Your task to perform on an android device: set the timer Image 0: 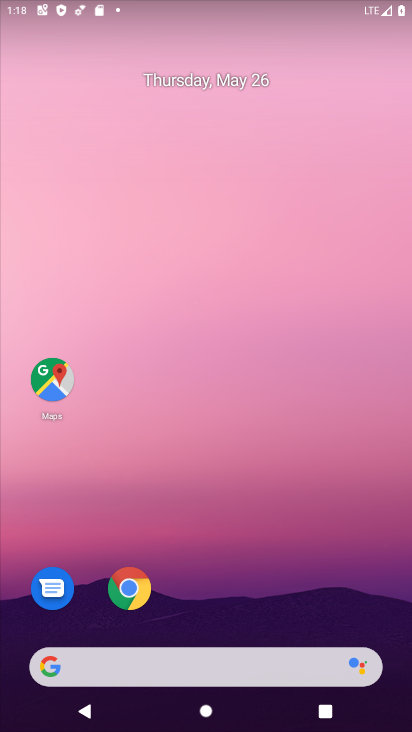
Step 0: drag from (402, 701) to (372, 170)
Your task to perform on an android device: set the timer Image 1: 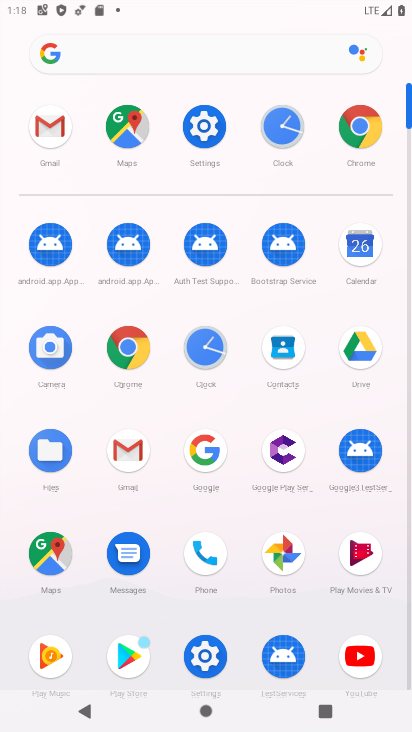
Step 1: click (281, 135)
Your task to perform on an android device: set the timer Image 2: 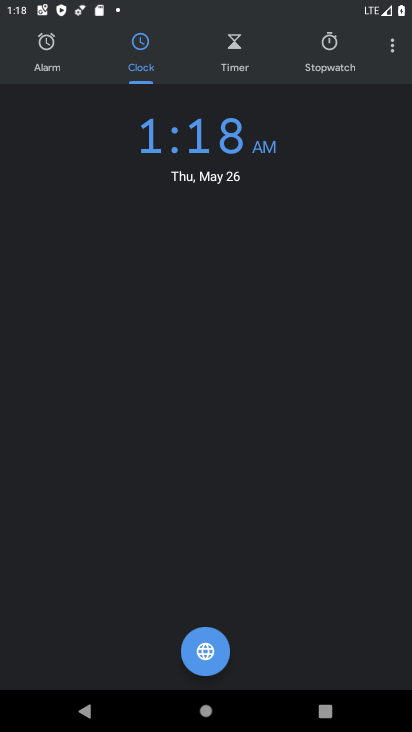
Step 2: click (393, 48)
Your task to perform on an android device: set the timer Image 3: 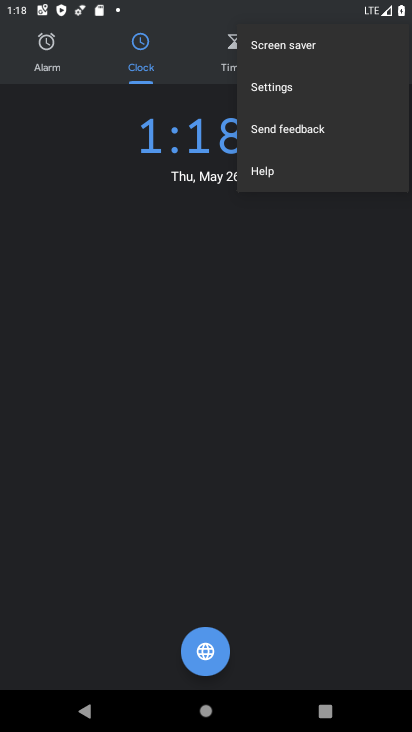
Step 3: click (274, 93)
Your task to perform on an android device: set the timer Image 4: 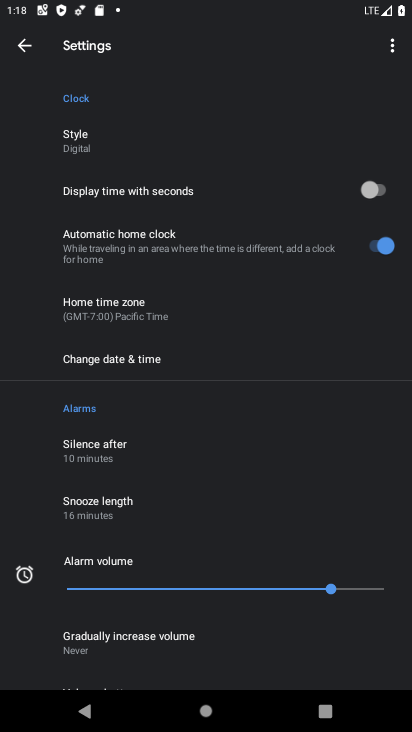
Step 4: click (30, 48)
Your task to perform on an android device: set the timer Image 5: 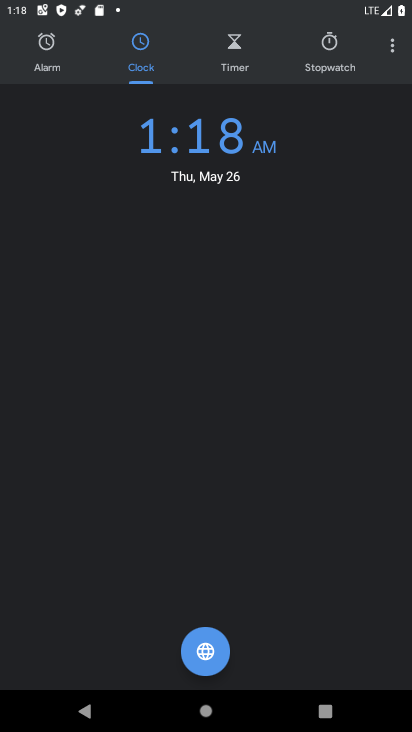
Step 5: click (325, 54)
Your task to perform on an android device: set the timer Image 6: 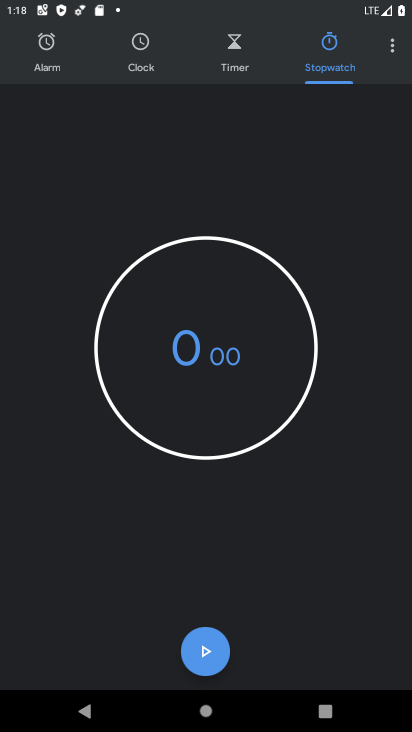
Step 6: click (194, 656)
Your task to perform on an android device: set the timer Image 7: 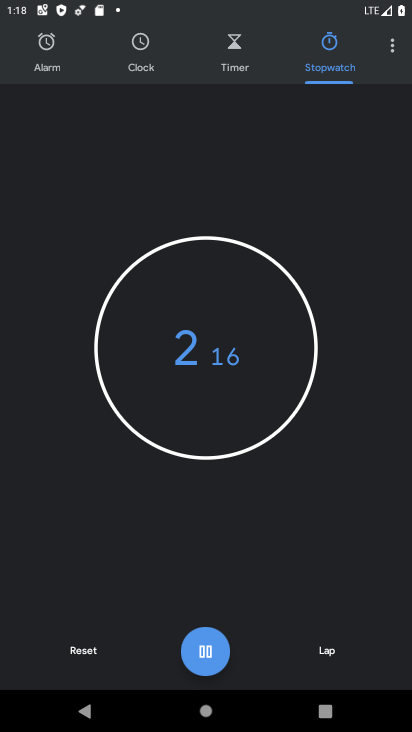
Step 7: task complete